Your task to perform on an android device: delete a single message in the gmail app Image 0: 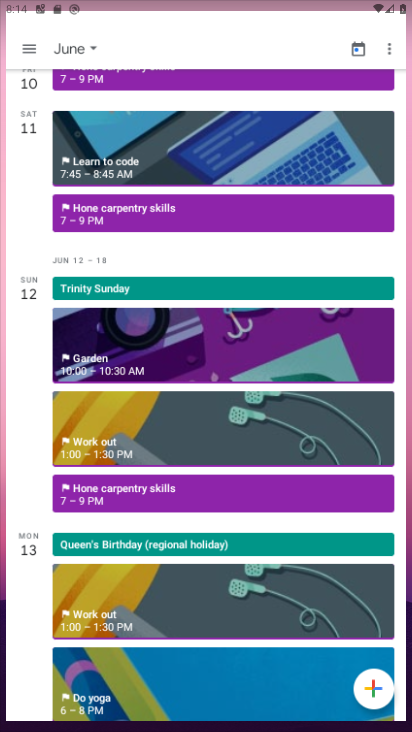
Step 0: press home button
Your task to perform on an android device: delete a single message in the gmail app Image 1: 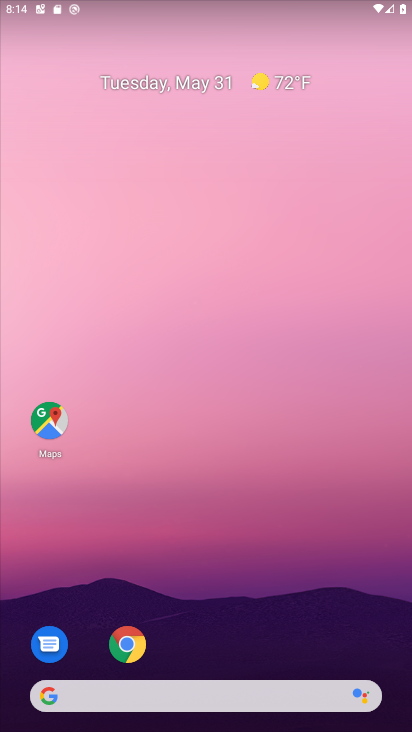
Step 1: drag from (217, 658) to (238, 84)
Your task to perform on an android device: delete a single message in the gmail app Image 2: 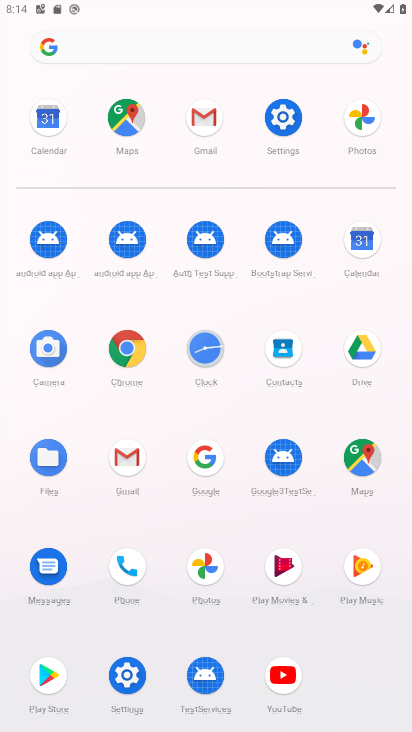
Step 2: click (202, 112)
Your task to perform on an android device: delete a single message in the gmail app Image 3: 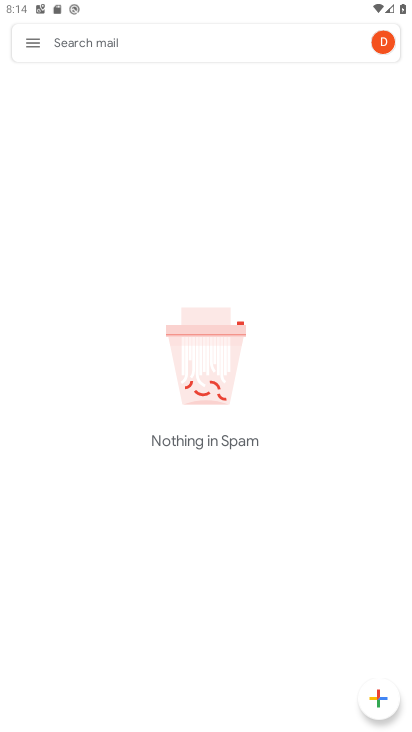
Step 3: click (26, 39)
Your task to perform on an android device: delete a single message in the gmail app Image 4: 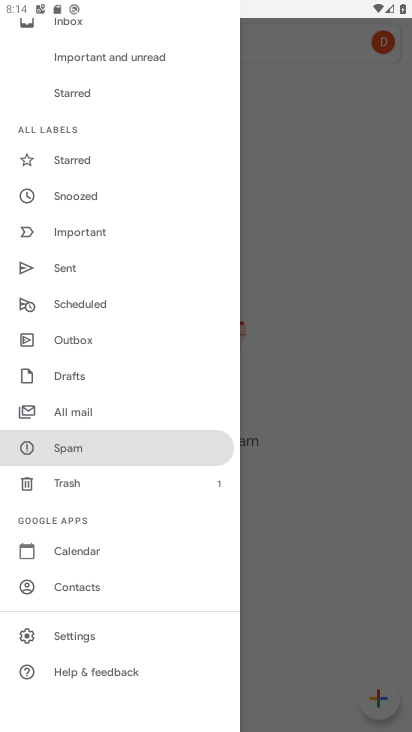
Step 4: click (80, 409)
Your task to perform on an android device: delete a single message in the gmail app Image 5: 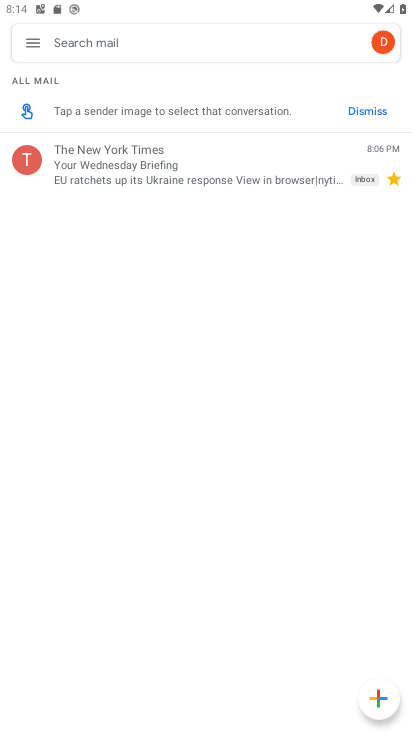
Step 5: task complete